Your task to perform on an android device: Open calendar and show me the fourth week of next month Image 0: 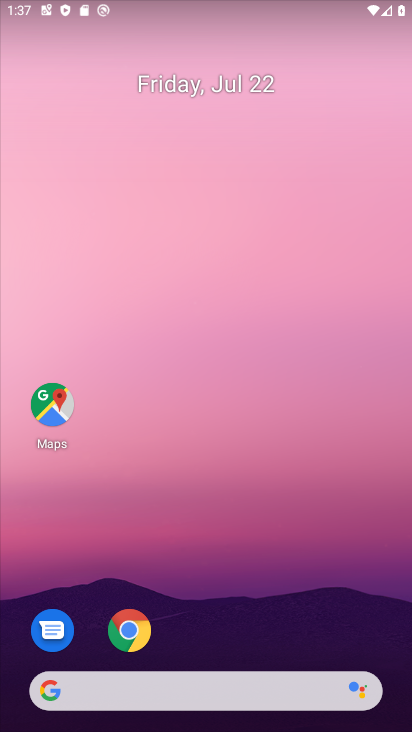
Step 0: click (195, 150)
Your task to perform on an android device: Open calendar and show me the fourth week of next month Image 1: 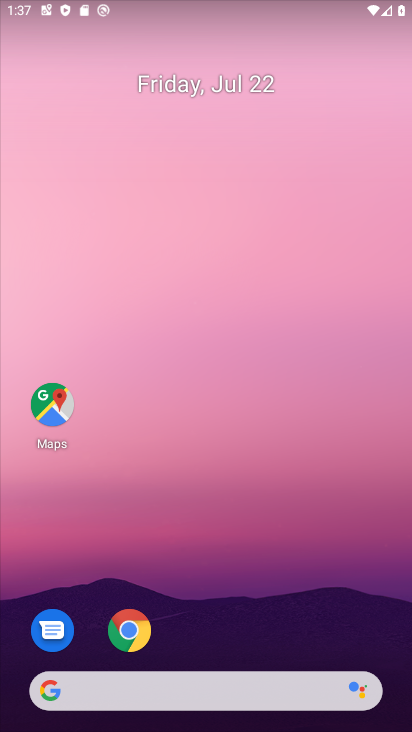
Step 1: drag from (185, 616) to (185, 146)
Your task to perform on an android device: Open calendar and show me the fourth week of next month Image 2: 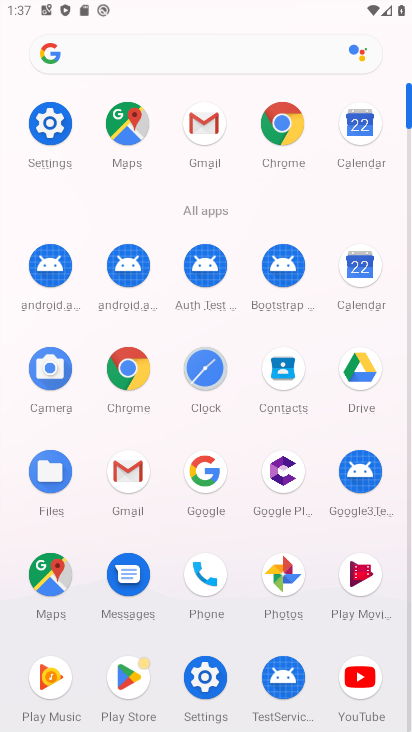
Step 2: click (360, 286)
Your task to perform on an android device: Open calendar and show me the fourth week of next month Image 3: 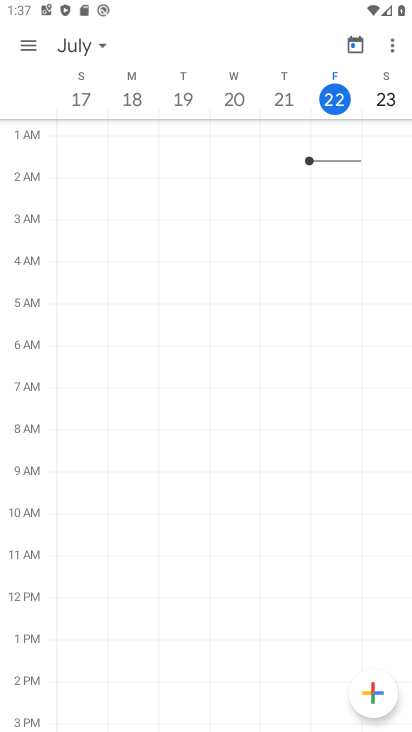
Step 3: click (76, 41)
Your task to perform on an android device: Open calendar and show me the fourth week of next month Image 4: 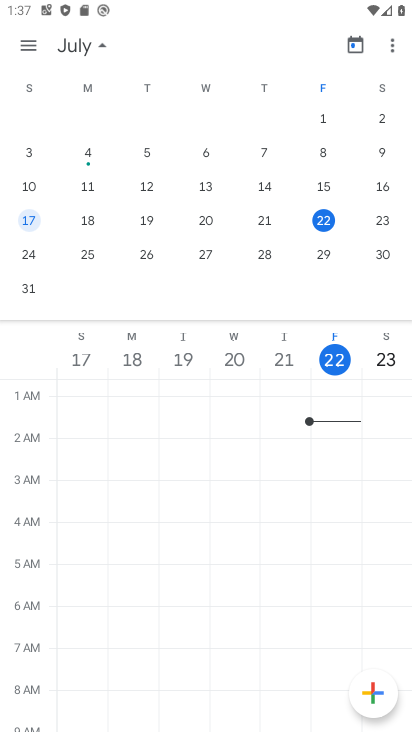
Step 4: drag from (360, 168) to (3, 226)
Your task to perform on an android device: Open calendar and show me the fourth week of next month Image 5: 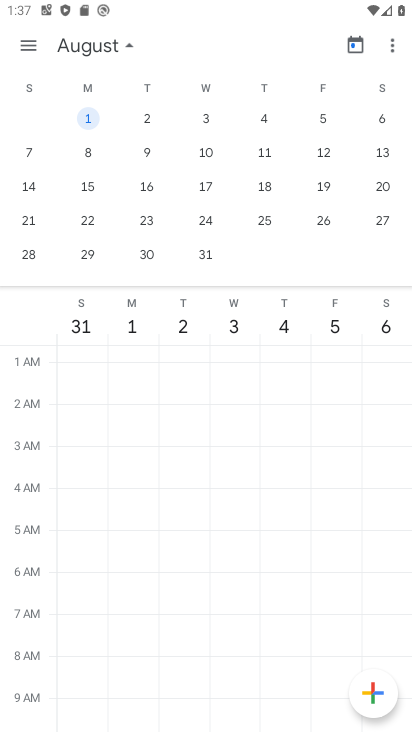
Step 5: click (25, 218)
Your task to perform on an android device: Open calendar and show me the fourth week of next month Image 6: 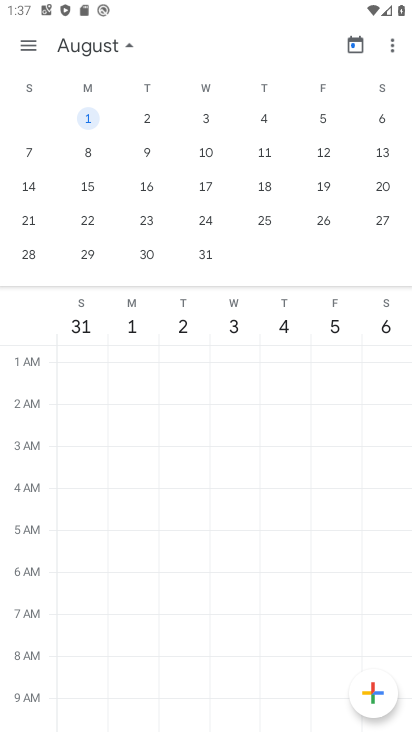
Step 6: click (25, 218)
Your task to perform on an android device: Open calendar and show me the fourth week of next month Image 7: 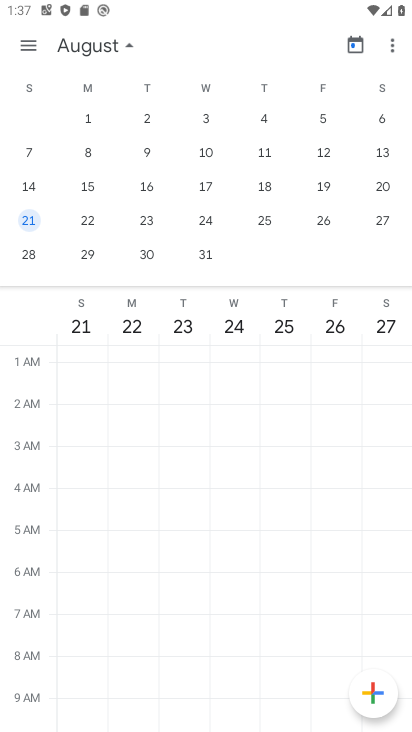
Step 7: task complete